Your task to perform on an android device: turn on translation in the chrome app Image 0: 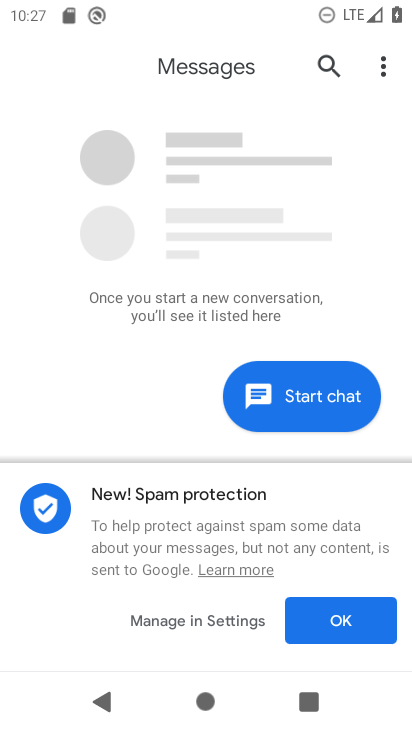
Step 0: press home button
Your task to perform on an android device: turn on translation in the chrome app Image 1: 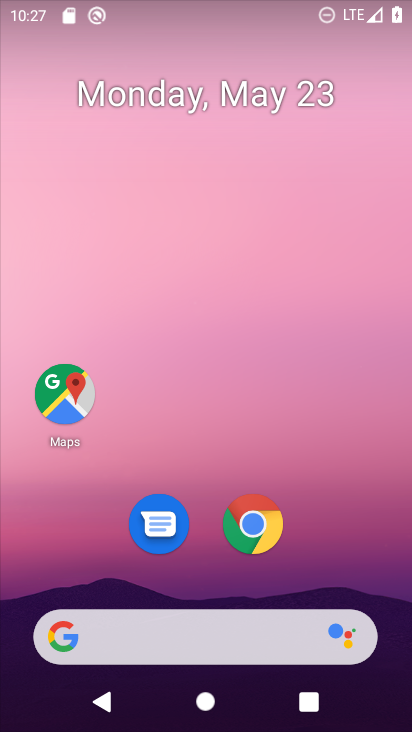
Step 1: click (262, 516)
Your task to perform on an android device: turn on translation in the chrome app Image 2: 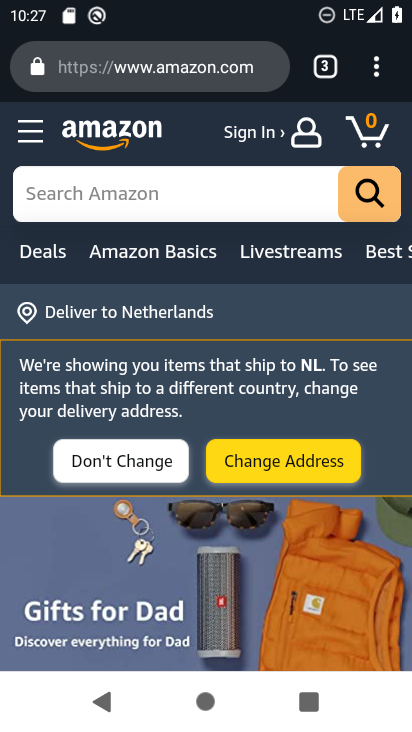
Step 2: click (381, 72)
Your task to perform on an android device: turn on translation in the chrome app Image 3: 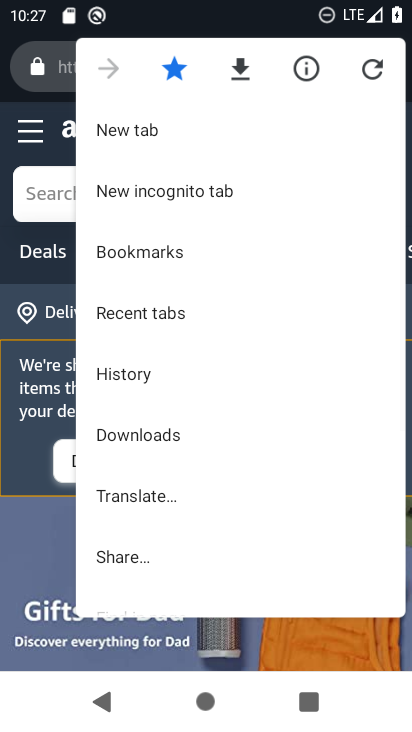
Step 3: drag from (200, 486) to (229, 160)
Your task to perform on an android device: turn on translation in the chrome app Image 4: 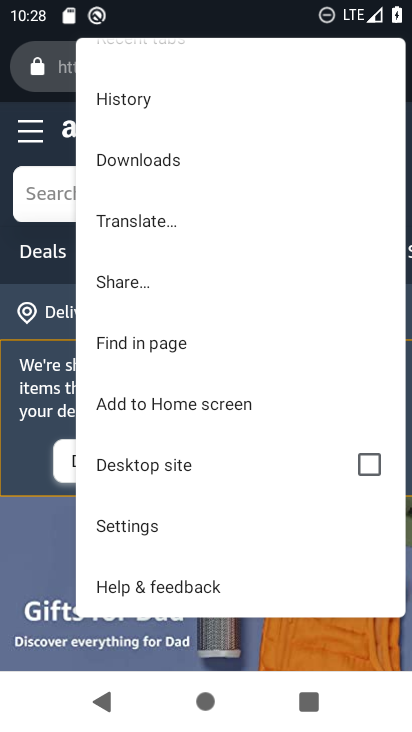
Step 4: click (168, 531)
Your task to perform on an android device: turn on translation in the chrome app Image 5: 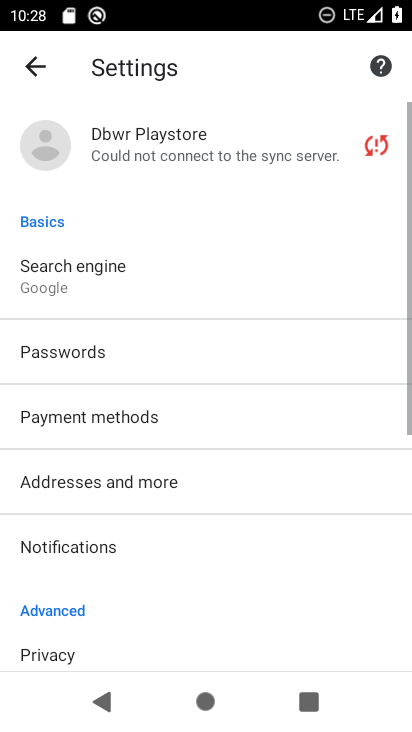
Step 5: drag from (245, 440) to (277, 193)
Your task to perform on an android device: turn on translation in the chrome app Image 6: 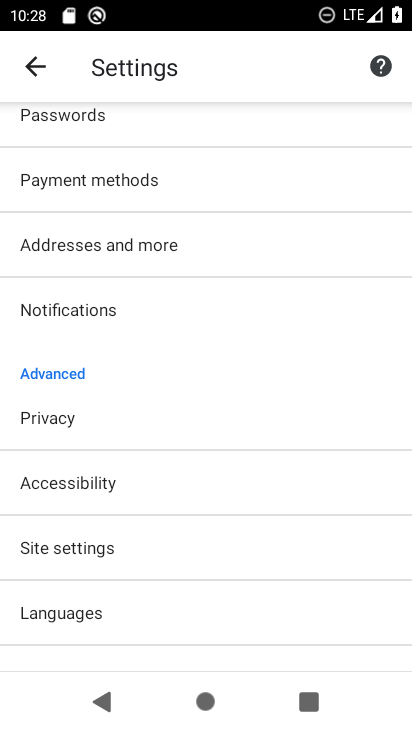
Step 6: click (211, 615)
Your task to perform on an android device: turn on translation in the chrome app Image 7: 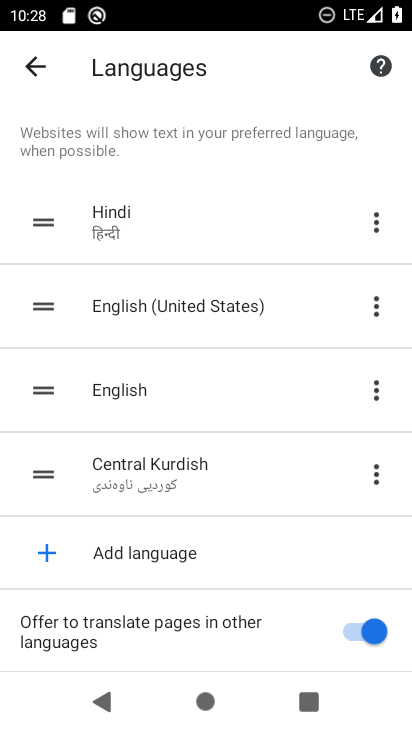
Step 7: task complete